Your task to perform on an android device: Open Maps and search for coffee Image 0: 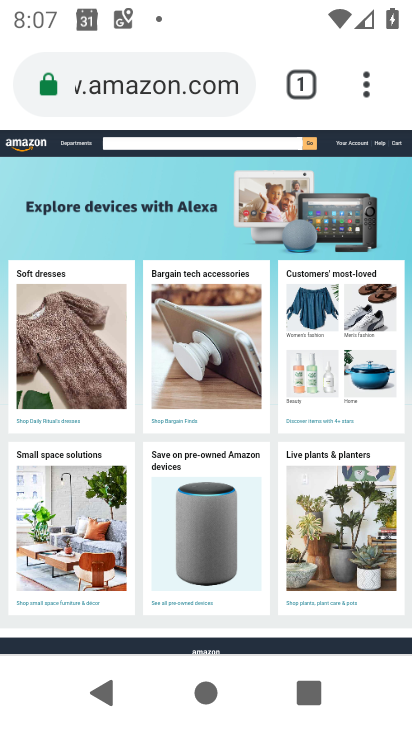
Step 0: press home button
Your task to perform on an android device: Open Maps and search for coffee Image 1: 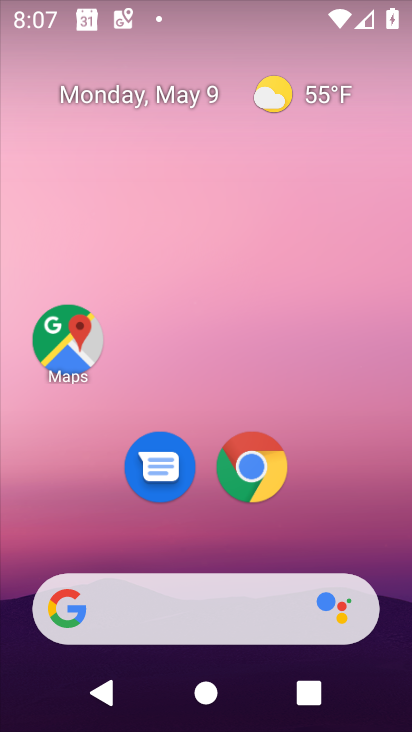
Step 1: click (69, 343)
Your task to perform on an android device: Open Maps and search for coffee Image 2: 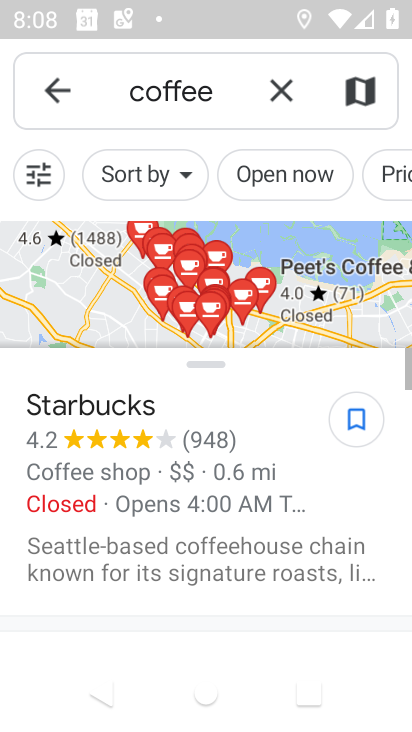
Step 2: task complete